Your task to perform on an android device: turn off wifi Image 0: 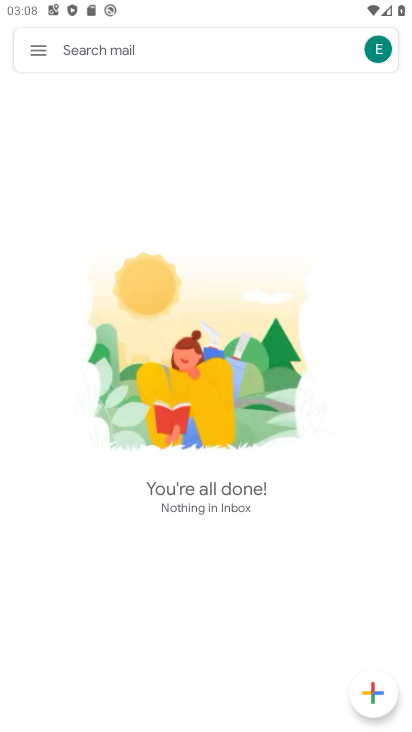
Step 0: drag from (277, 5) to (347, 547)
Your task to perform on an android device: turn off wifi Image 1: 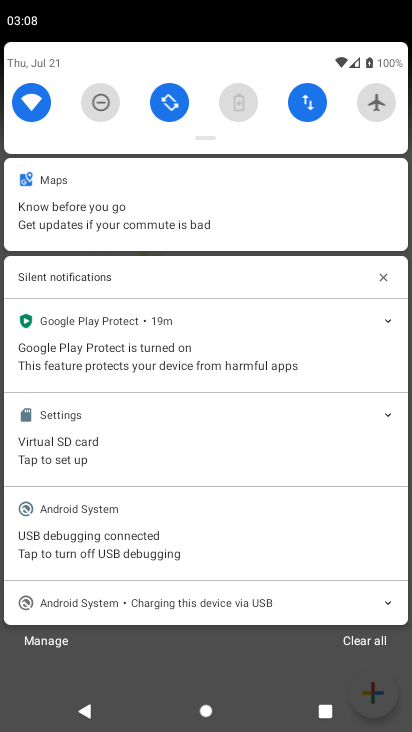
Step 1: click (28, 105)
Your task to perform on an android device: turn off wifi Image 2: 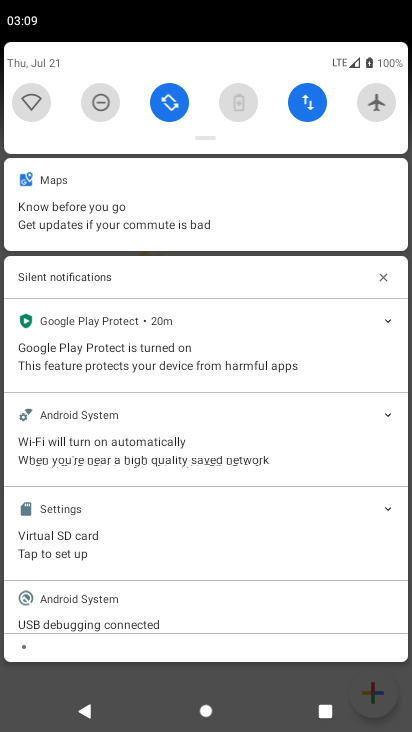
Step 2: task complete